Your task to perform on an android device: turn off notifications in google photos Image 0: 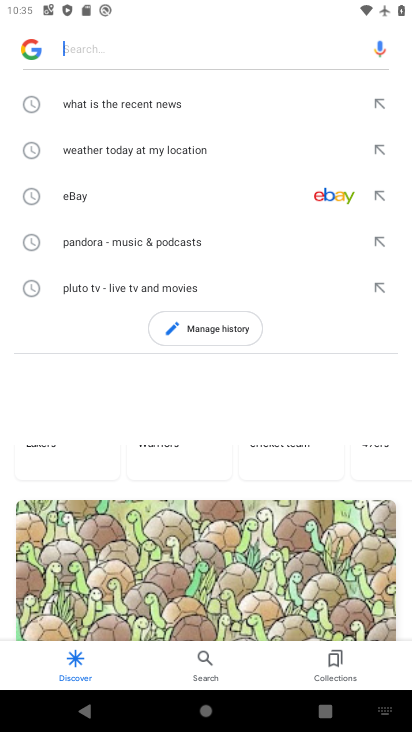
Step 0: press home button
Your task to perform on an android device: turn off notifications in google photos Image 1: 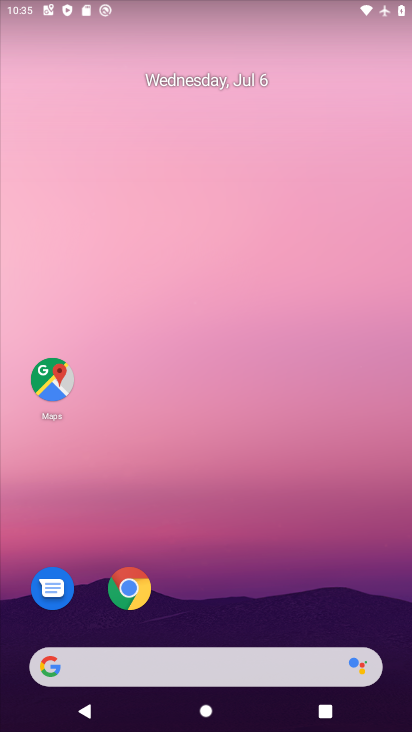
Step 1: drag from (247, 651) to (260, 236)
Your task to perform on an android device: turn off notifications in google photos Image 2: 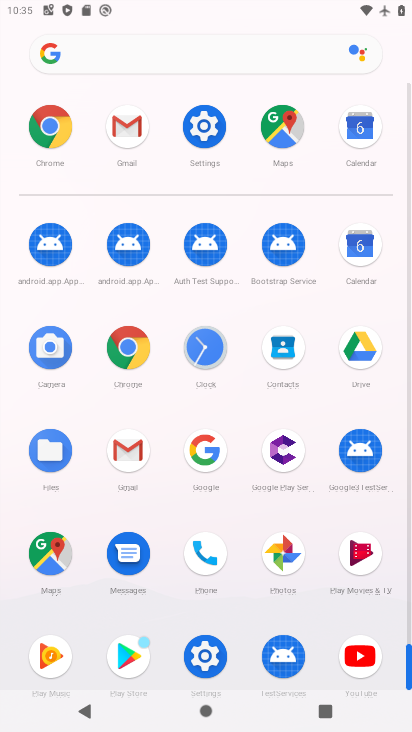
Step 2: click (284, 562)
Your task to perform on an android device: turn off notifications in google photos Image 3: 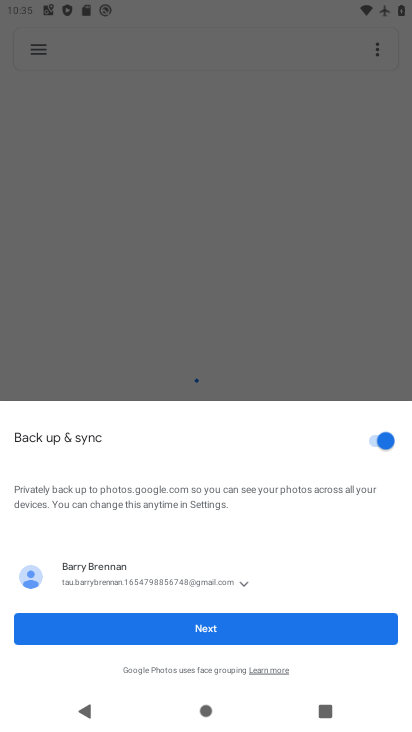
Step 3: click (282, 622)
Your task to perform on an android device: turn off notifications in google photos Image 4: 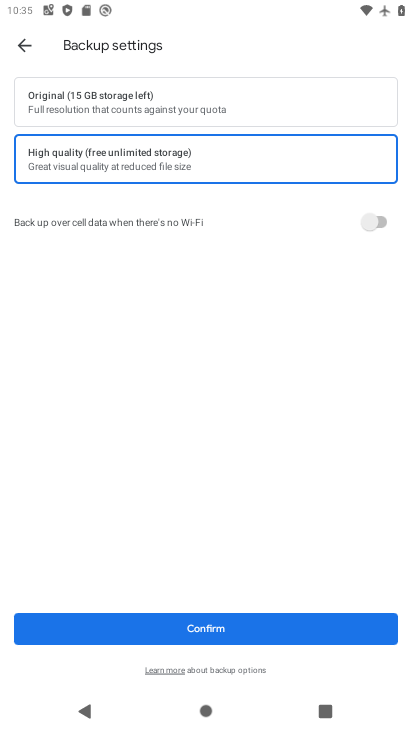
Step 4: click (281, 620)
Your task to perform on an android device: turn off notifications in google photos Image 5: 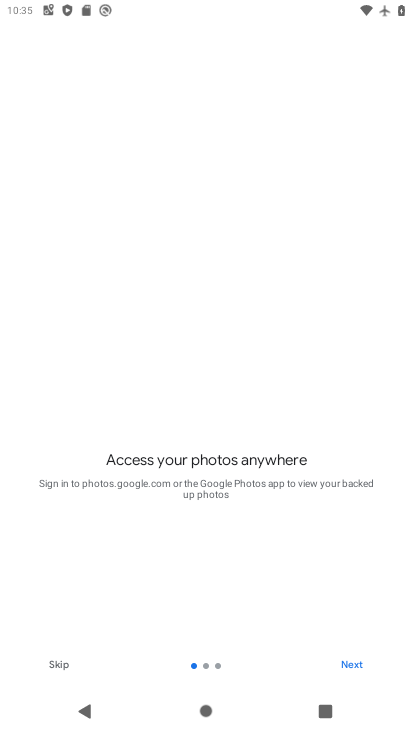
Step 5: click (348, 651)
Your task to perform on an android device: turn off notifications in google photos Image 6: 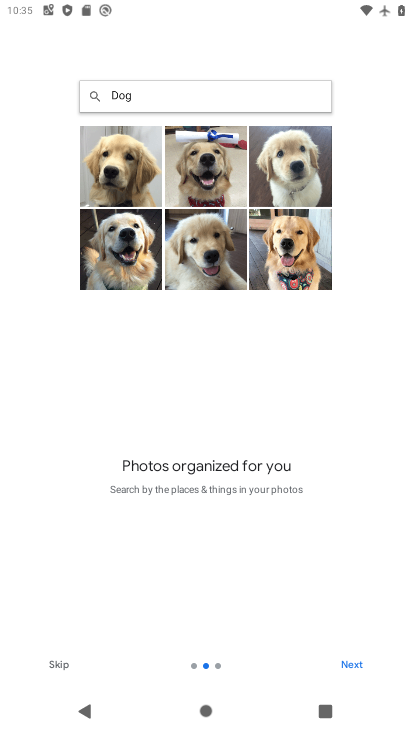
Step 6: click (345, 667)
Your task to perform on an android device: turn off notifications in google photos Image 7: 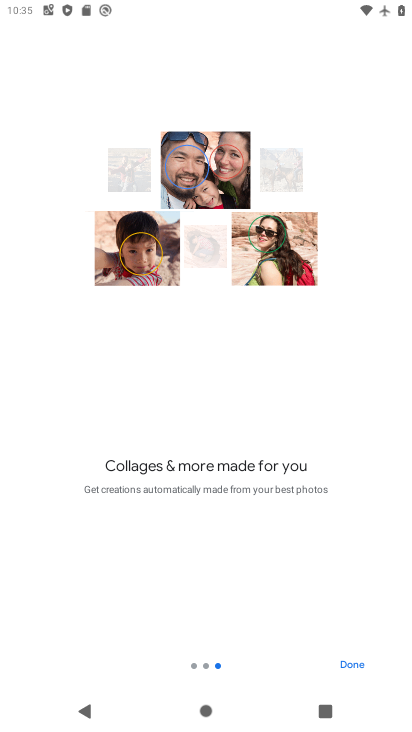
Step 7: click (352, 663)
Your task to perform on an android device: turn off notifications in google photos Image 8: 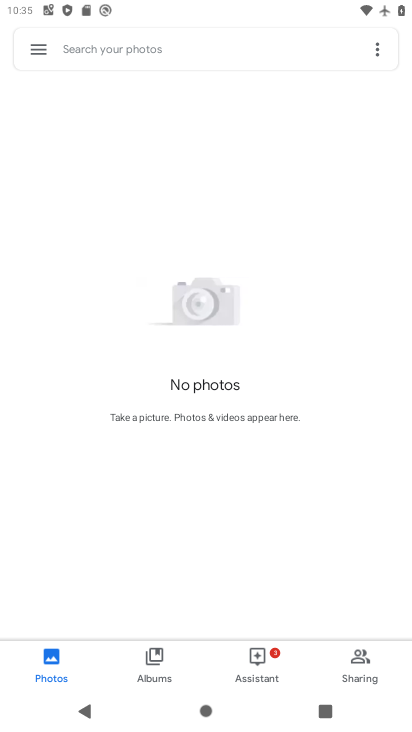
Step 8: click (28, 44)
Your task to perform on an android device: turn off notifications in google photos Image 9: 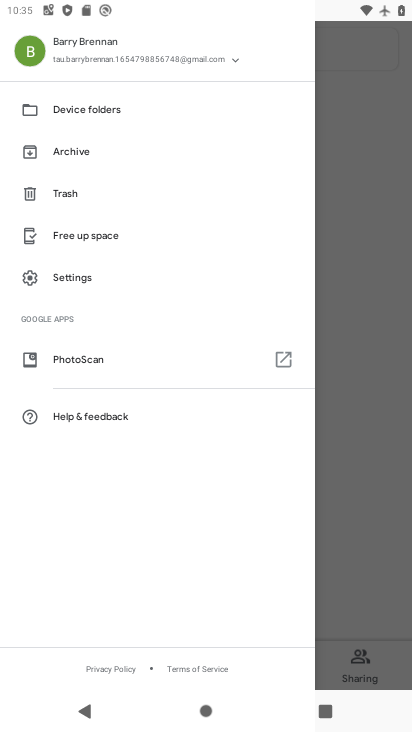
Step 9: click (80, 276)
Your task to perform on an android device: turn off notifications in google photos Image 10: 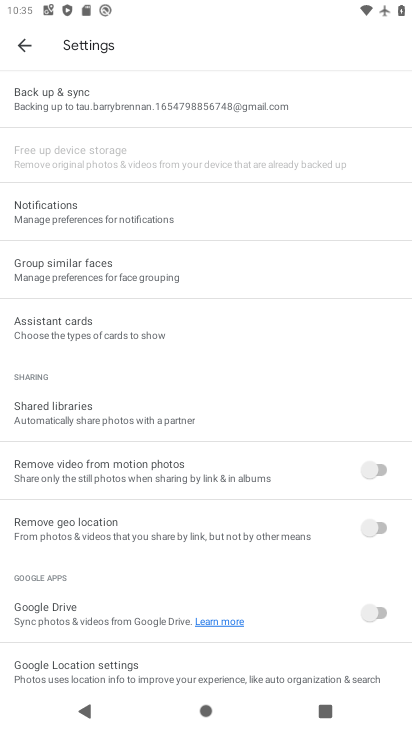
Step 10: click (116, 223)
Your task to perform on an android device: turn off notifications in google photos Image 11: 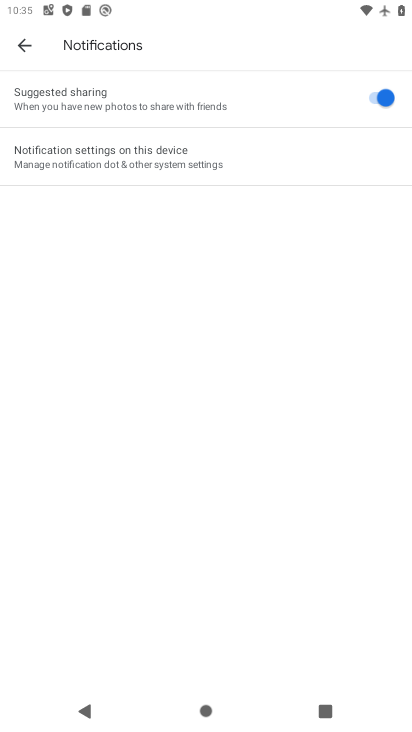
Step 11: click (294, 172)
Your task to perform on an android device: turn off notifications in google photos Image 12: 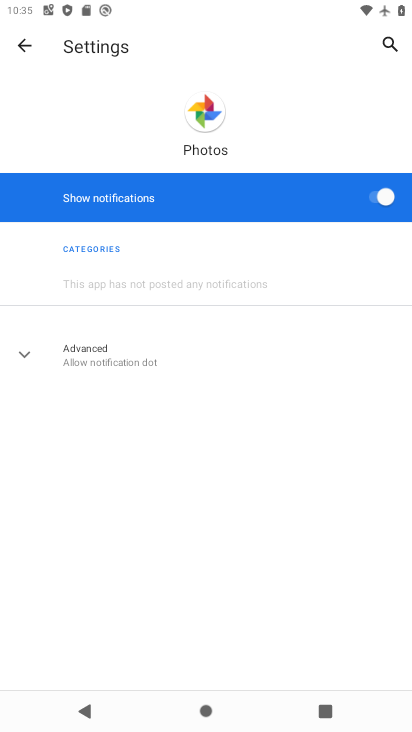
Step 12: click (370, 192)
Your task to perform on an android device: turn off notifications in google photos Image 13: 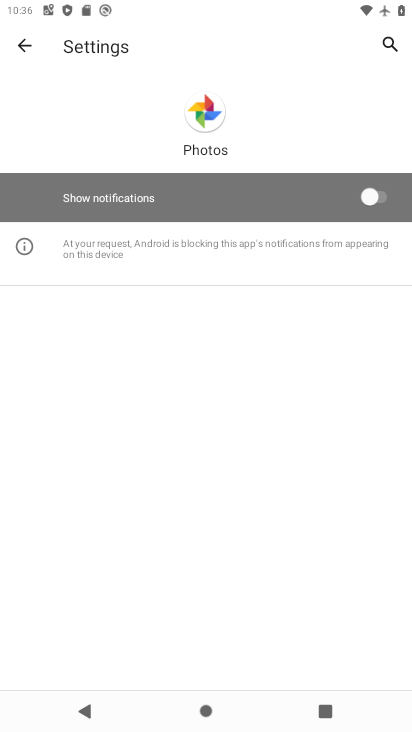
Step 13: task complete